Your task to perform on an android device: Open ESPN.com Image 0: 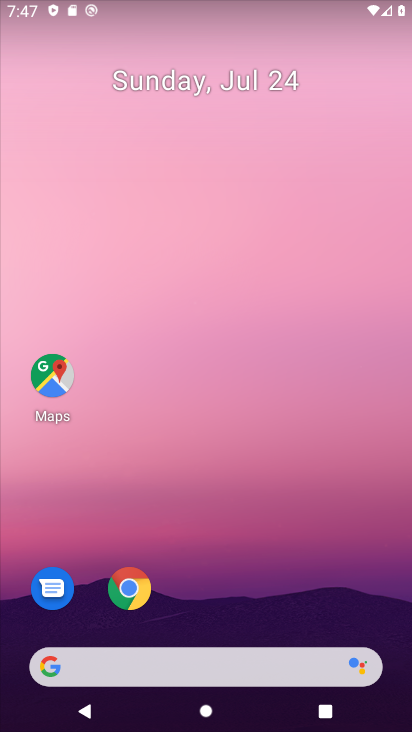
Step 0: click (192, 668)
Your task to perform on an android device: Open ESPN.com Image 1: 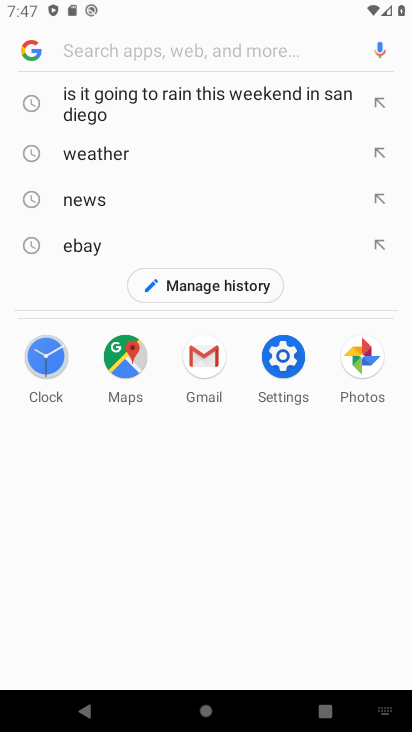
Step 1: type "espn.com"
Your task to perform on an android device: Open ESPN.com Image 2: 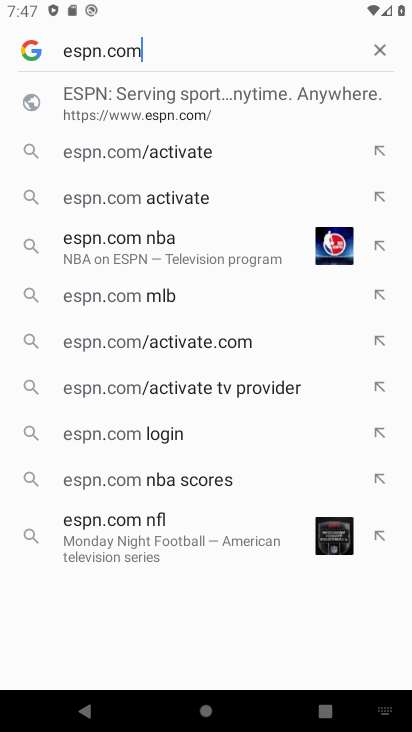
Step 2: click (272, 99)
Your task to perform on an android device: Open ESPN.com Image 3: 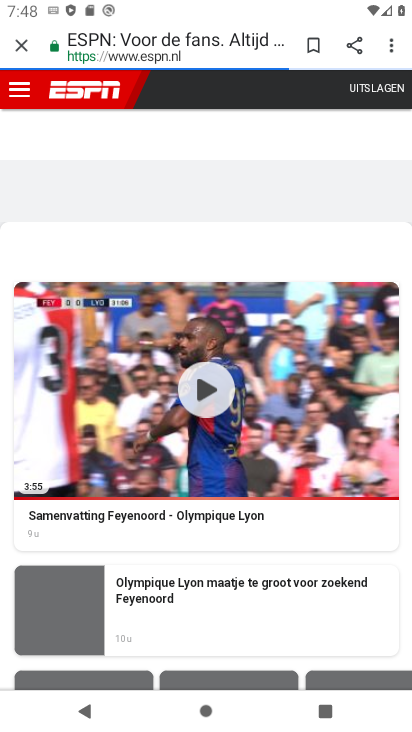
Step 3: task complete